Your task to perform on an android device: Open privacy settings Image 0: 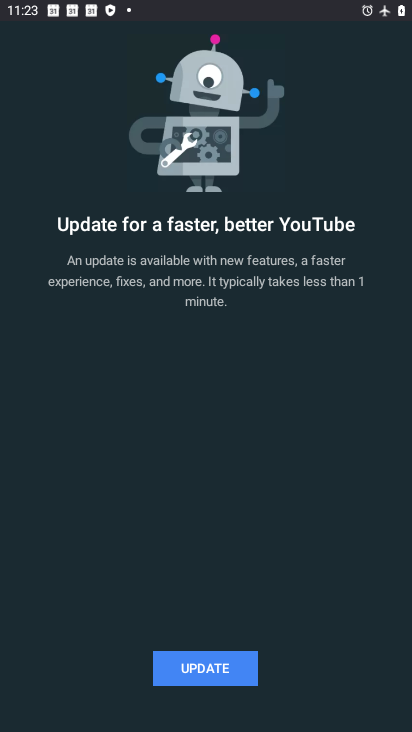
Step 0: press home button
Your task to perform on an android device: Open privacy settings Image 1: 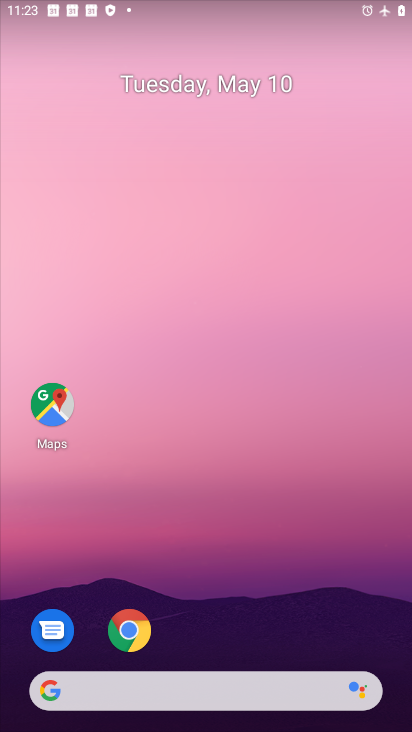
Step 1: drag from (227, 689) to (345, 166)
Your task to perform on an android device: Open privacy settings Image 2: 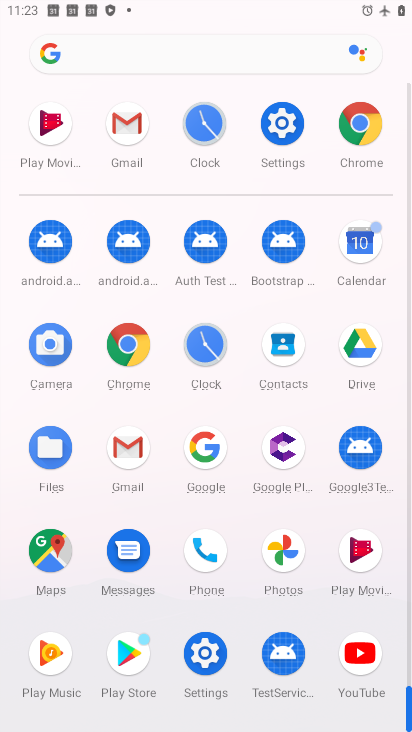
Step 2: click (297, 125)
Your task to perform on an android device: Open privacy settings Image 3: 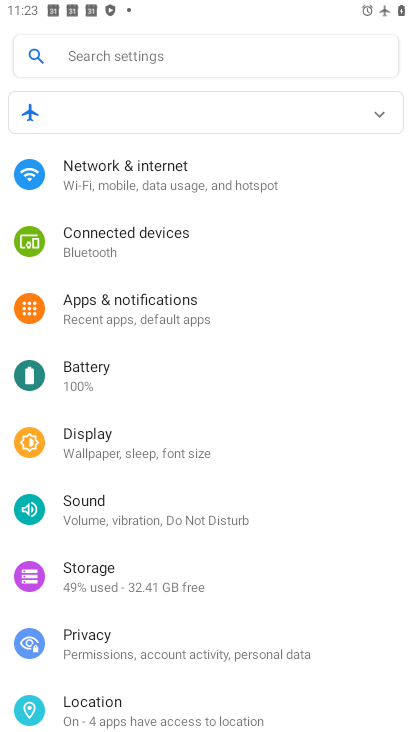
Step 3: click (107, 644)
Your task to perform on an android device: Open privacy settings Image 4: 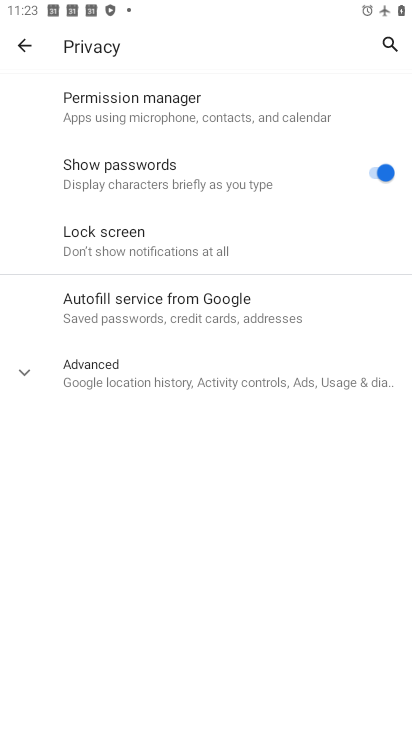
Step 4: task complete